Your task to perform on an android device: open a new tab in the chrome app Image 0: 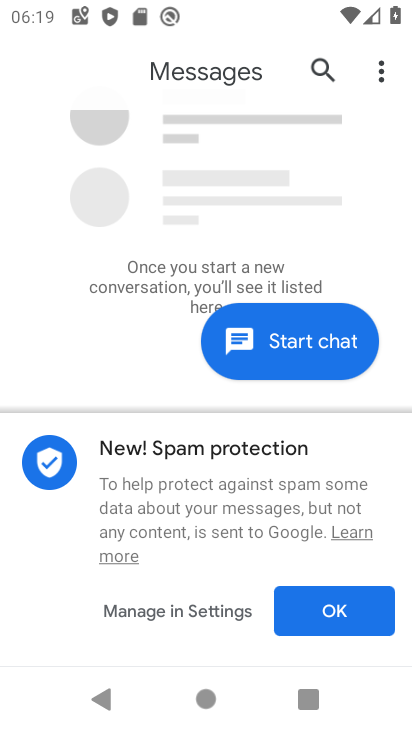
Step 0: click (252, 539)
Your task to perform on an android device: open a new tab in the chrome app Image 1: 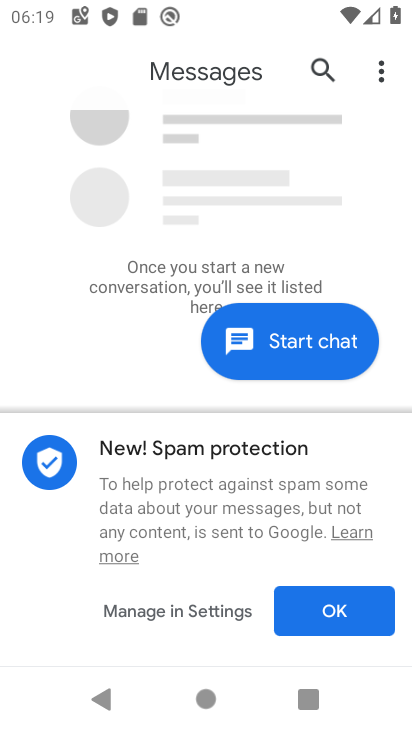
Step 1: click (283, 632)
Your task to perform on an android device: open a new tab in the chrome app Image 2: 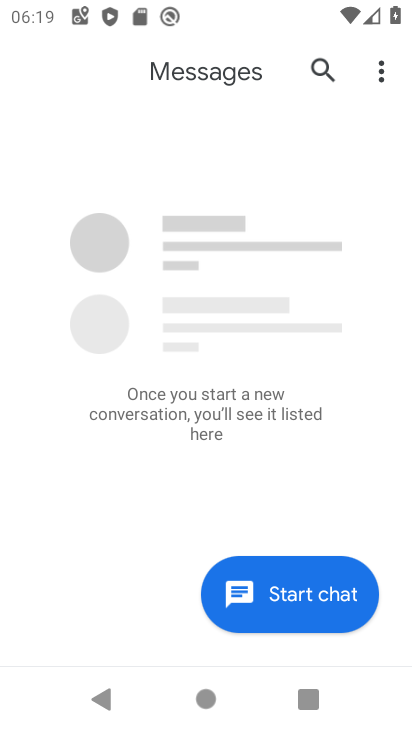
Step 2: press home button
Your task to perform on an android device: open a new tab in the chrome app Image 3: 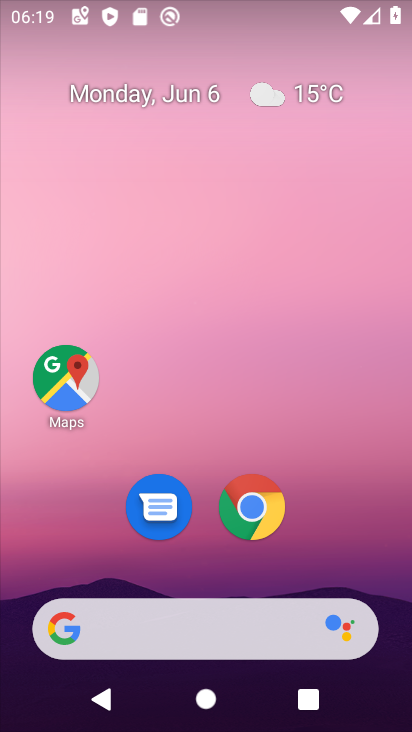
Step 3: click (274, 505)
Your task to perform on an android device: open a new tab in the chrome app Image 4: 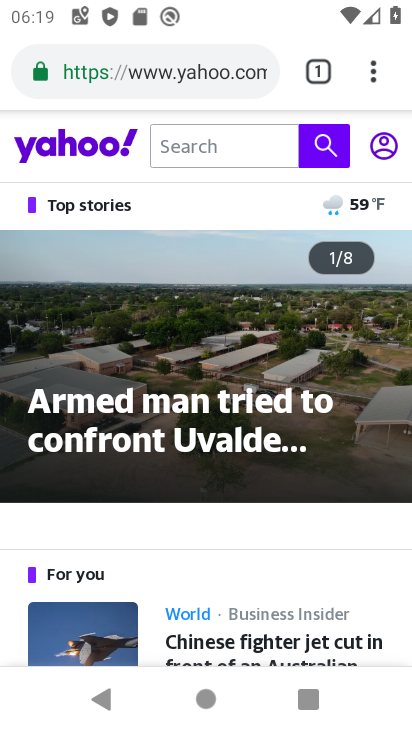
Step 4: click (327, 62)
Your task to perform on an android device: open a new tab in the chrome app Image 5: 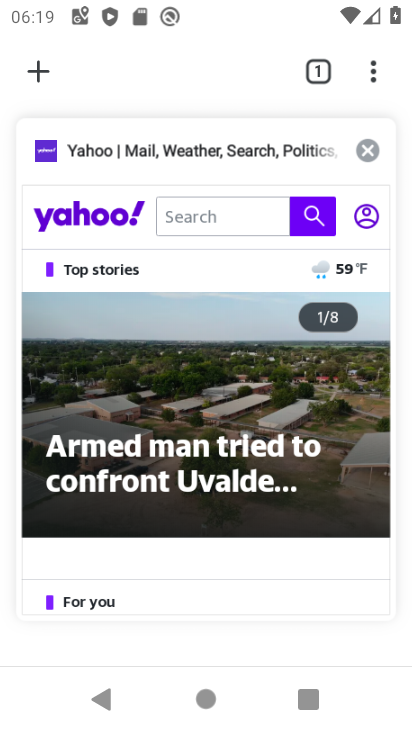
Step 5: click (29, 66)
Your task to perform on an android device: open a new tab in the chrome app Image 6: 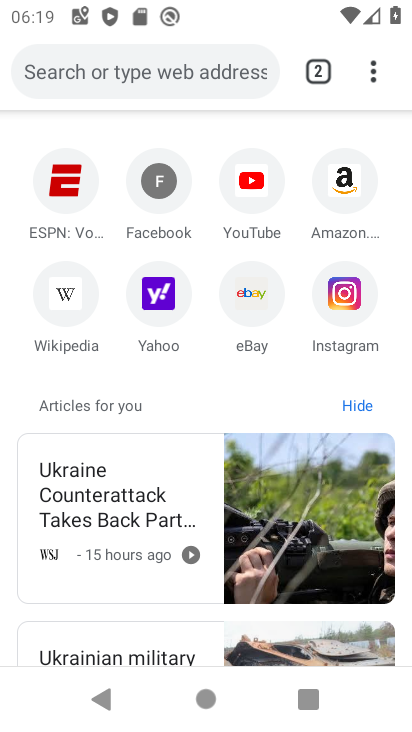
Step 6: task complete